Your task to perform on an android device: Go to Wikipedia Image 0: 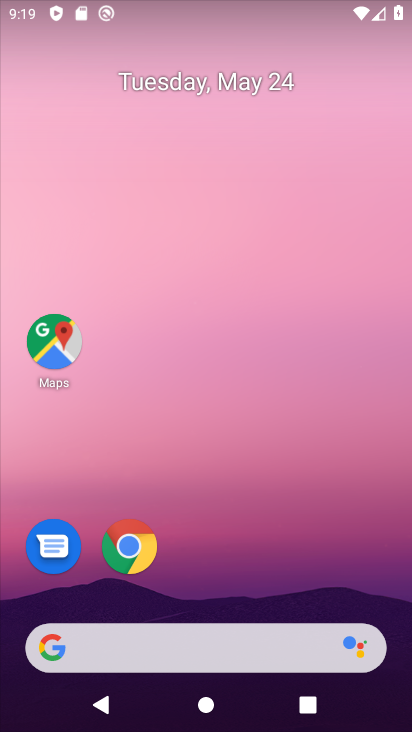
Step 0: click (136, 544)
Your task to perform on an android device: Go to Wikipedia Image 1: 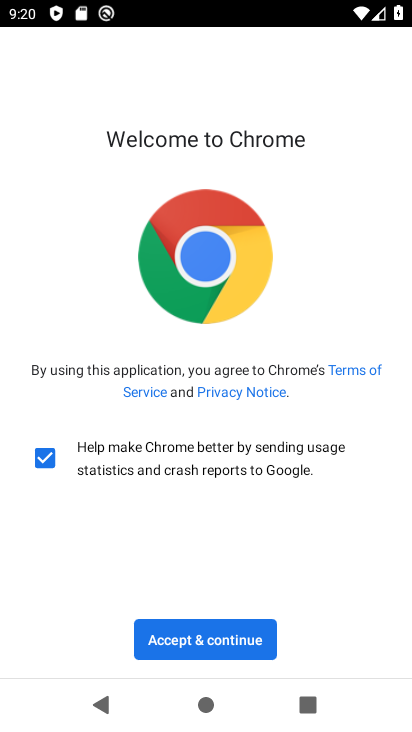
Step 1: click (206, 632)
Your task to perform on an android device: Go to Wikipedia Image 2: 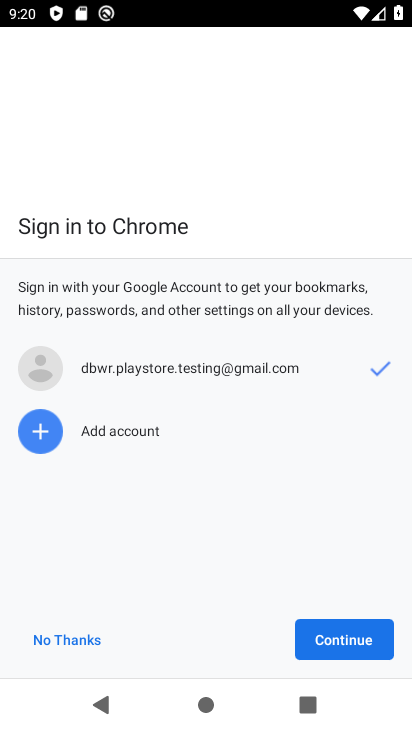
Step 2: click (365, 640)
Your task to perform on an android device: Go to Wikipedia Image 3: 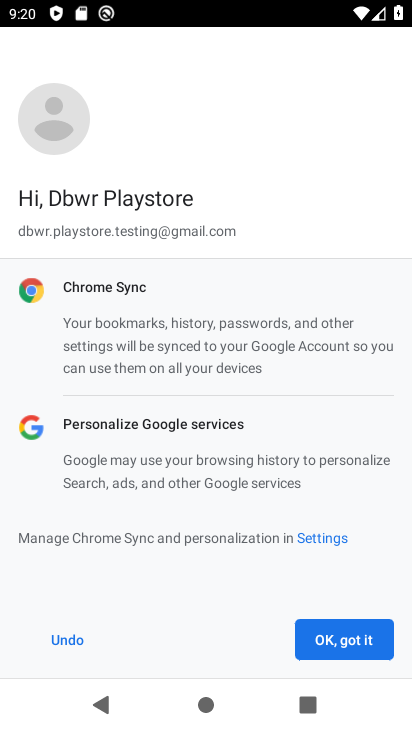
Step 3: click (343, 640)
Your task to perform on an android device: Go to Wikipedia Image 4: 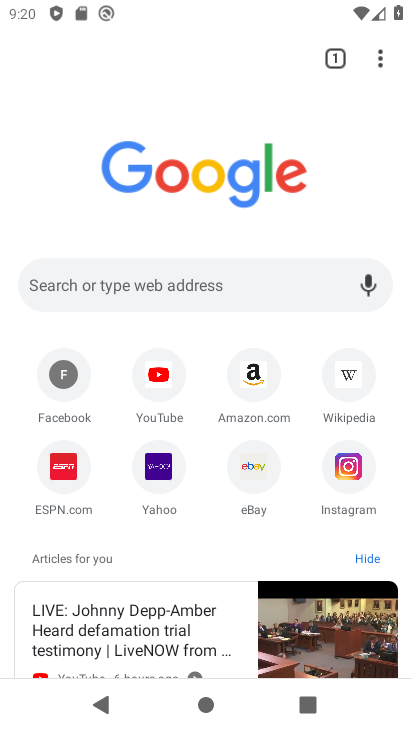
Step 4: click (353, 375)
Your task to perform on an android device: Go to Wikipedia Image 5: 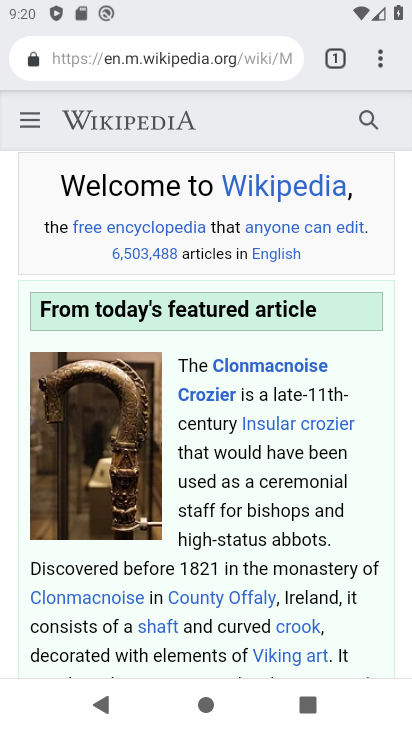
Step 5: task complete